Your task to perform on an android device: Turn off the flashlight Image 0: 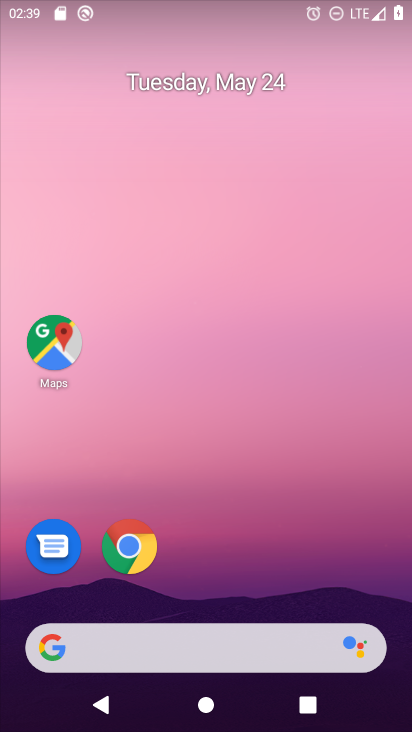
Step 0: drag from (257, 654) to (335, 1)
Your task to perform on an android device: Turn off the flashlight Image 1: 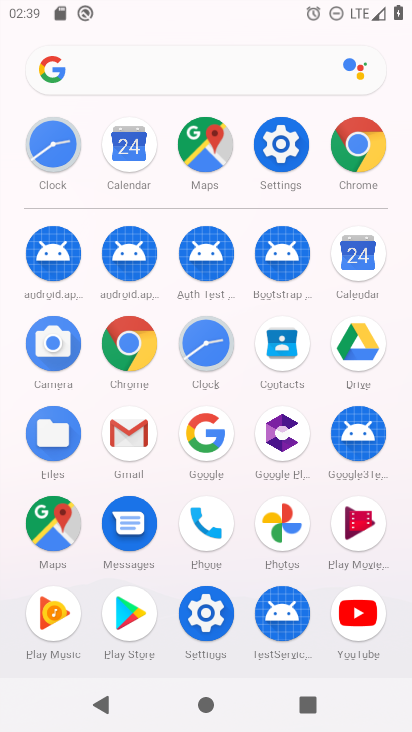
Step 1: click (290, 147)
Your task to perform on an android device: Turn off the flashlight Image 2: 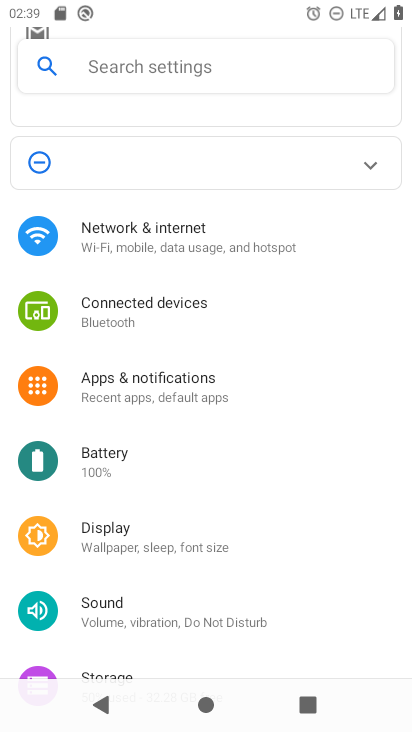
Step 2: task complete